Your task to perform on an android device: turn off notifications settings in the gmail app Image 0: 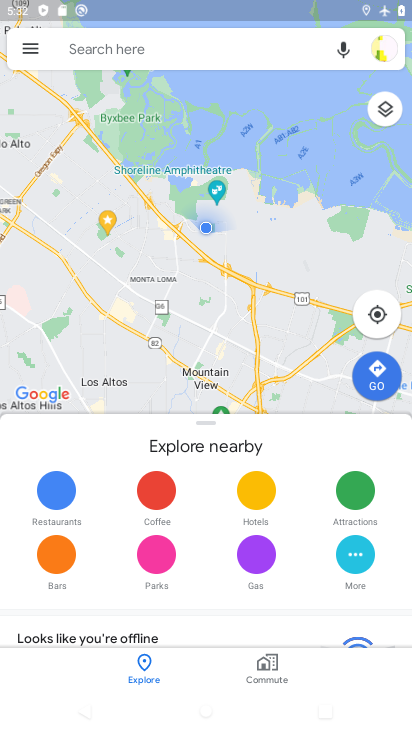
Step 0: press home button
Your task to perform on an android device: turn off notifications settings in the gmail app Image 1: 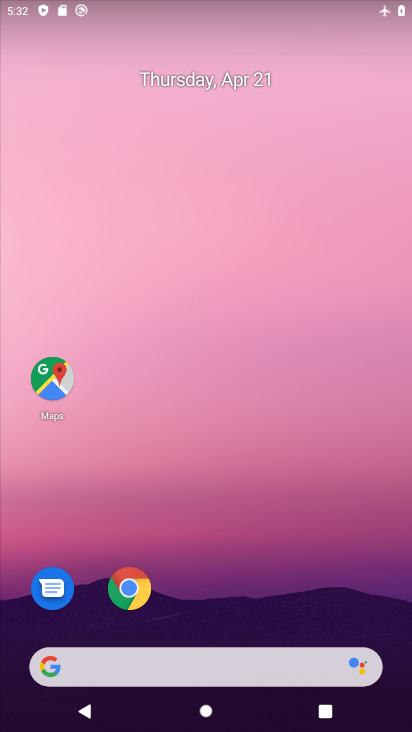
Step 1: drag from (213, 616) to (263, 202)
Your task to perform on an android device: turn off notifications settings in the gmail app Image 2: 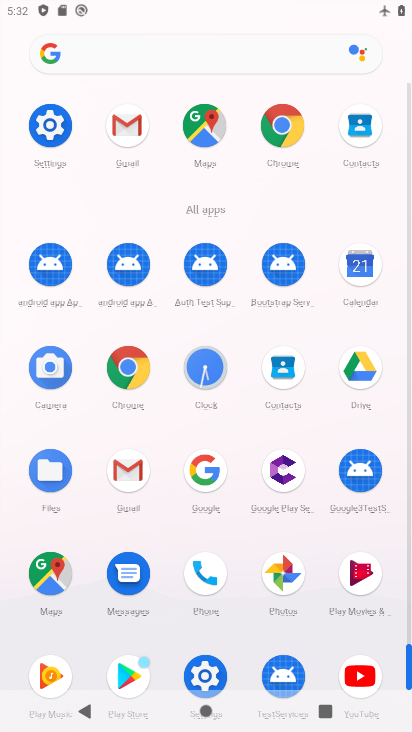
Step 2: click (127, 126)
Your task to perform on an android device: turn off notifications settings in the gmail app Image 3: 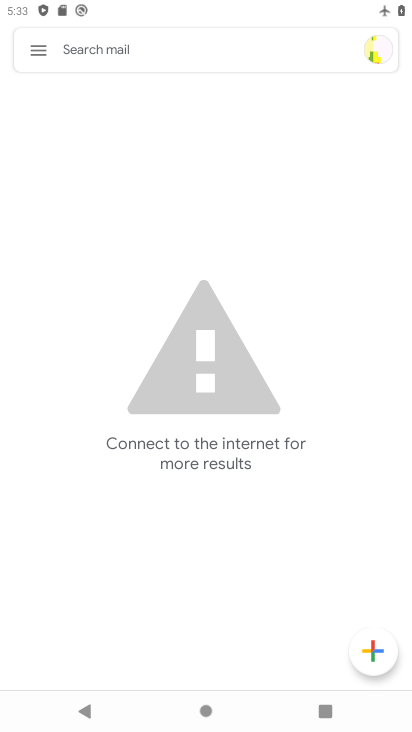
Step 3: press back button
Your task to perform on an android device: turn off notifications settings in the gmail app Image 4: 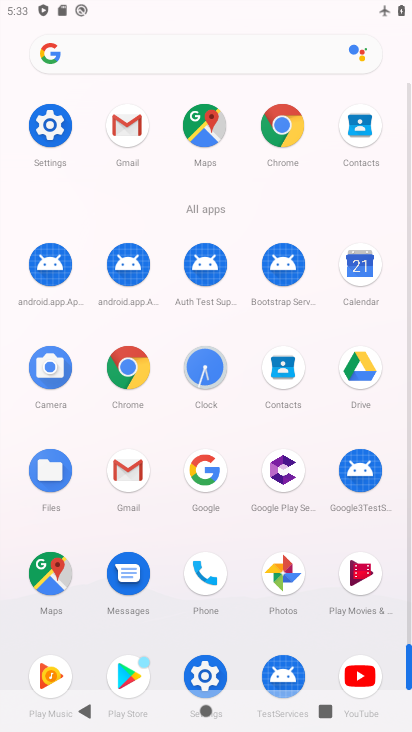
Step 4: click (59, 126)
Your task to perform on an android device: turn off notifications settings in the gmail app Image 5: 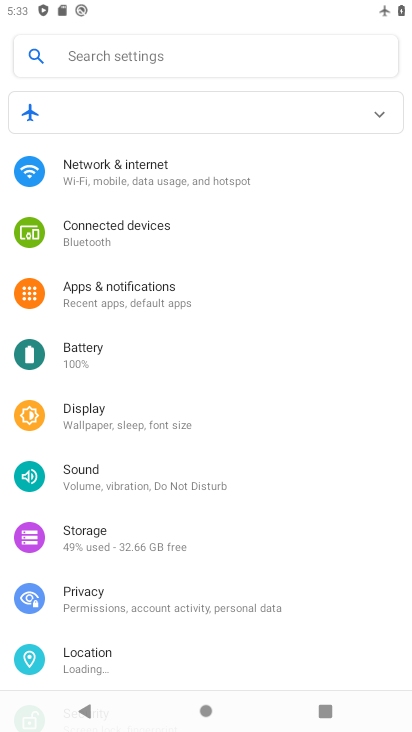
Step 5: click (132, 172)
Your task to perform on an android device: turn off notifications settings in the gmail app Image 6: 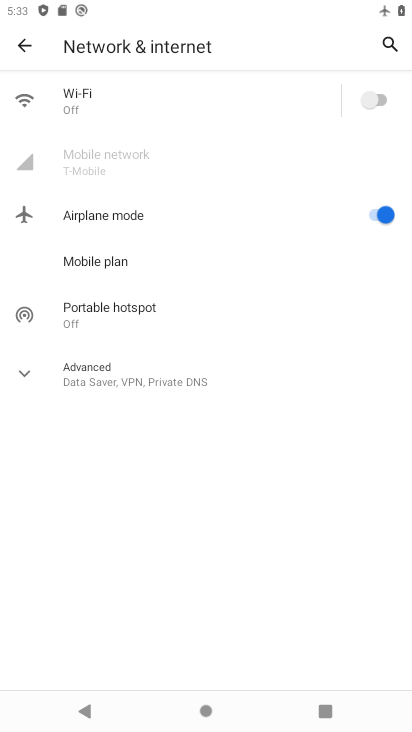
Step 6: click (374, 212)
Your task to perform on an android device: turn off notifications settings in the gmail app Image 7: 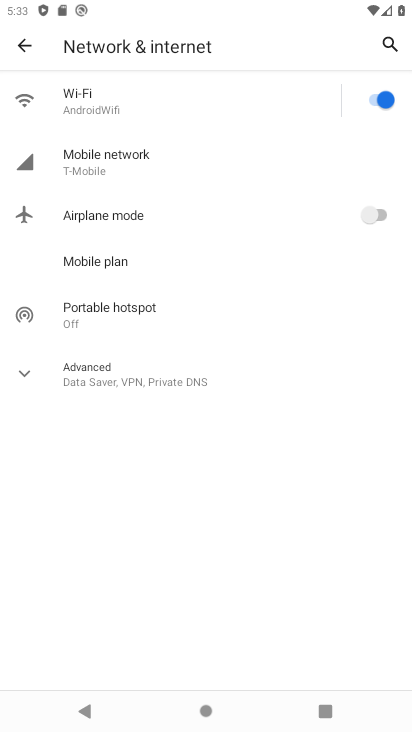
Step 7: press back button
Your task to perform on an android device: turn off notifications settings in the gmail app Image 8: 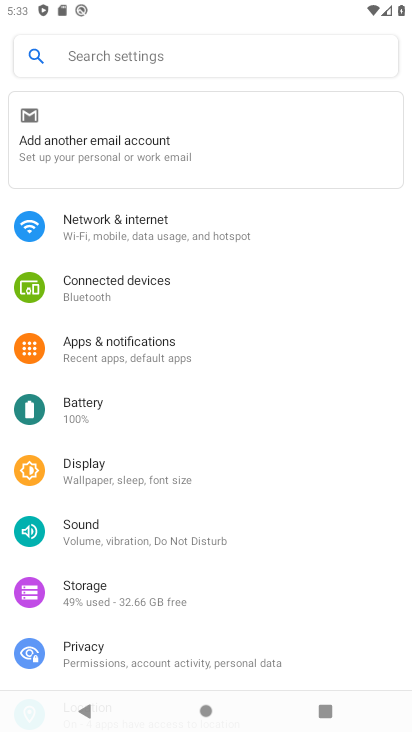
Step 8: press back button
Your task to perform on an android device: turn off notifications settings in the gmail app Image 9: 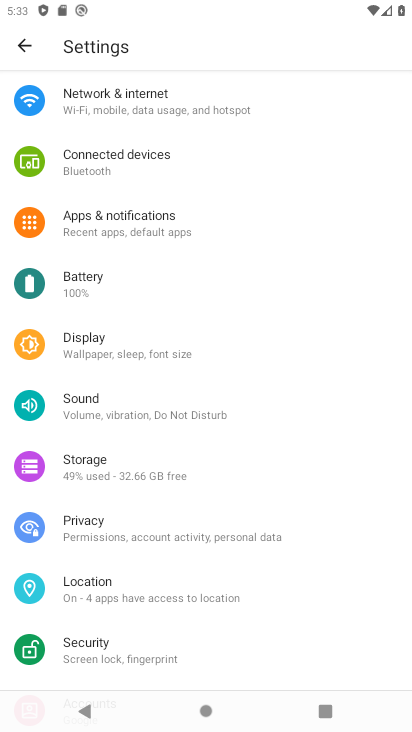
Step 9: drag from (189, 554) to (216, 397)
Your task to perform on an android device: turn off notifications settings in the gmail app Image 10: 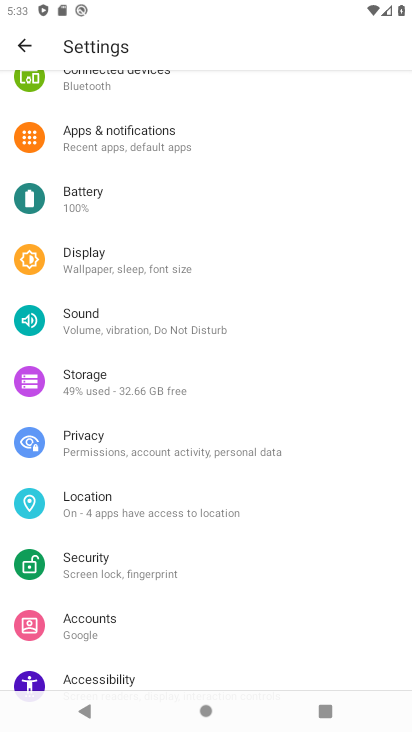
Step 10: drag from (221, 380) to (188, 471)
Your task to perform on an android device: turn off notifications settings in the gmail app Image 11: 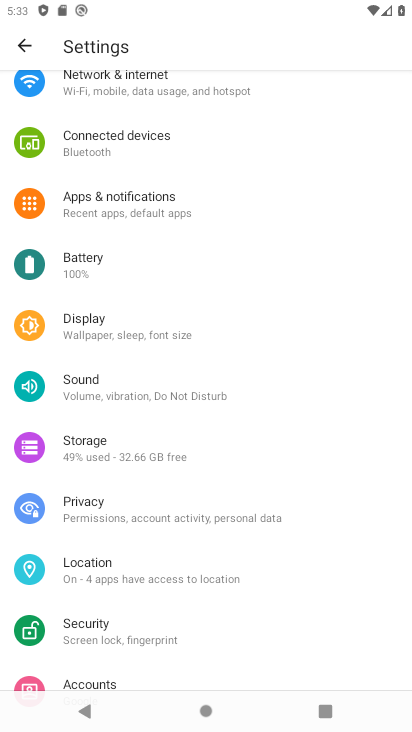
Step 11: drag from (188, 593) to (247, 240)
Your task to perform on an android device: turn off notifications settings in the gmail app Image 12: 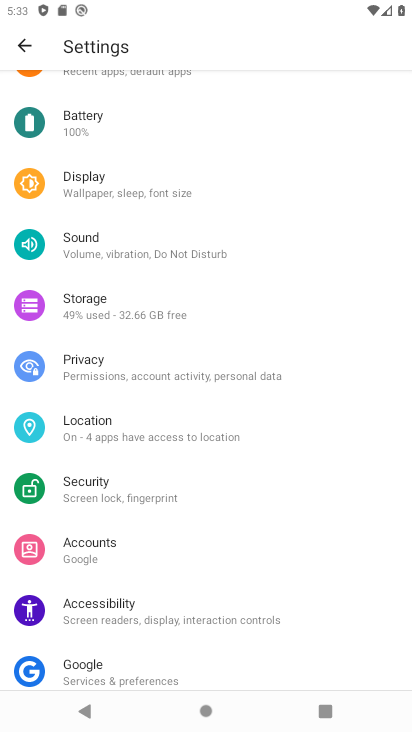
Step 12: drag from (216, 679) to (157, 323)
Your task to perform on an android device: turn off notifications settings in the gmail app Image 13: 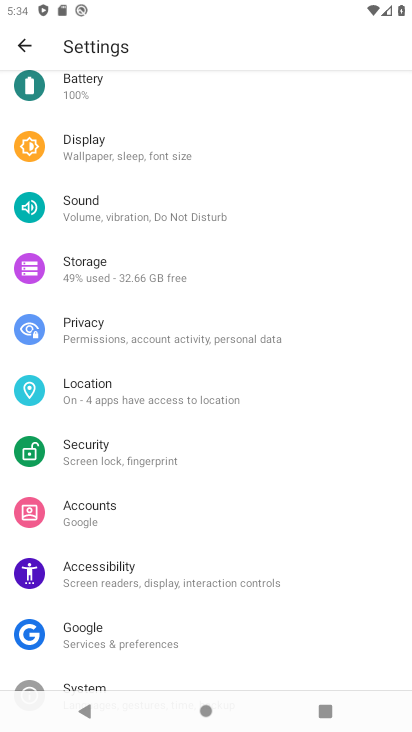
Step 13: drag from (181, 597) to (219, 197)
Your task to perform on an android device: turn off notifications settings in the gmail app Image 14: 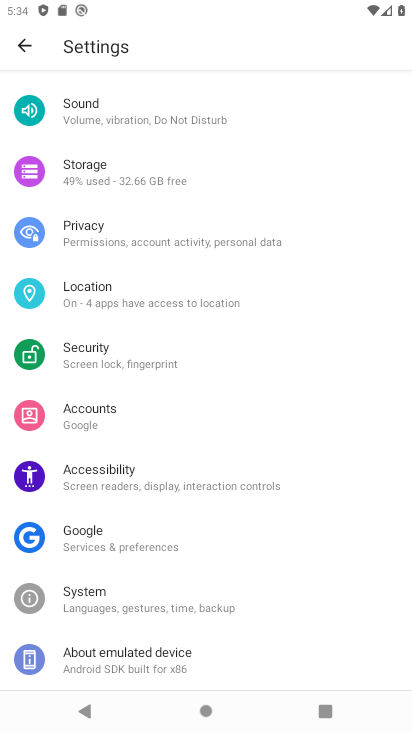
Step 14: drag from (185, 274) to (162, 598)
Your task to perform on an android device: turn off notifications settings in the gmail app Image 15: 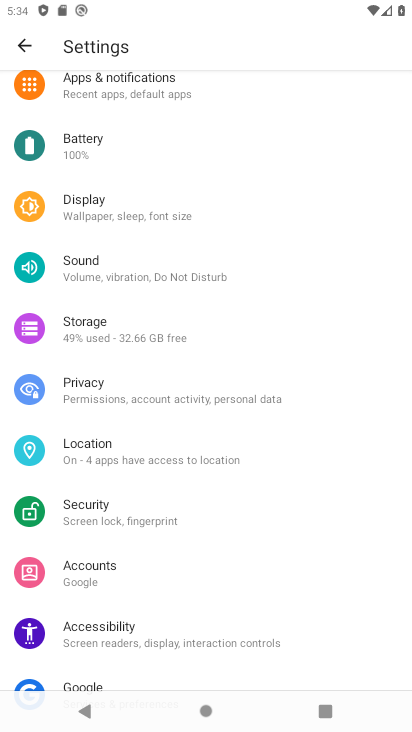
Step 15: drag from (206, 215) to (206, 599)
Your task to perform on an android device: turn off notifications settings in the gmail app Image 16: 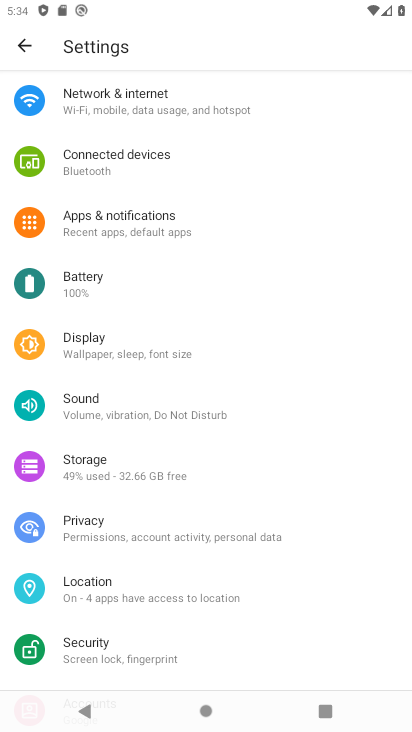
Step 16: press back button
Your task to perform on an android device: turn off notifications settings in the gmail app Image 17: 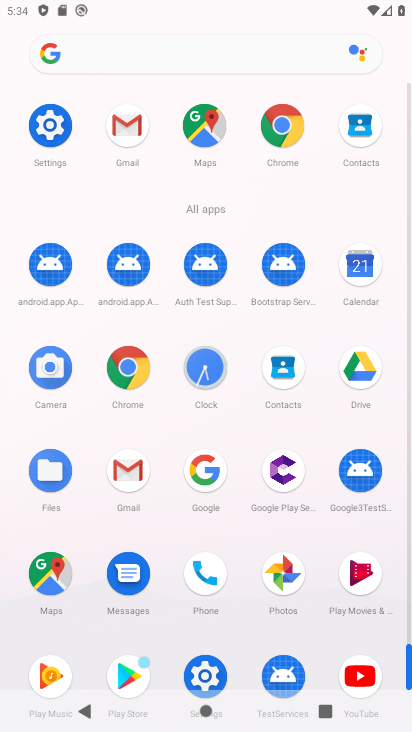
Step 17: click (119, 144)
Your task to perform on an android device: turn off notifications settings in the gmail app Image 18: 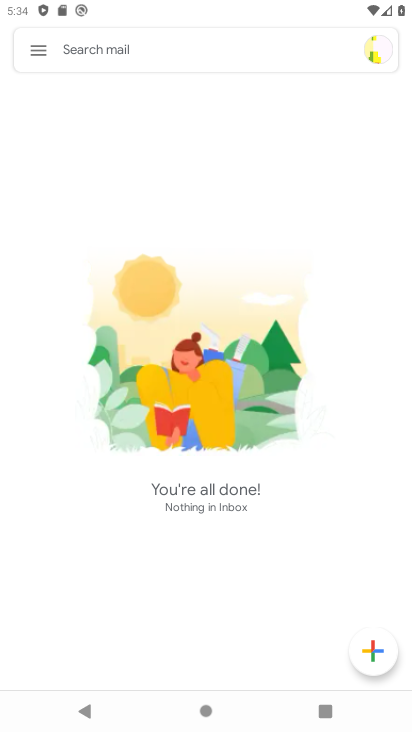
Step 18: click (30, 54)
Your task to perform on an android device: turn off notifications settings in the gmail app Image 19: 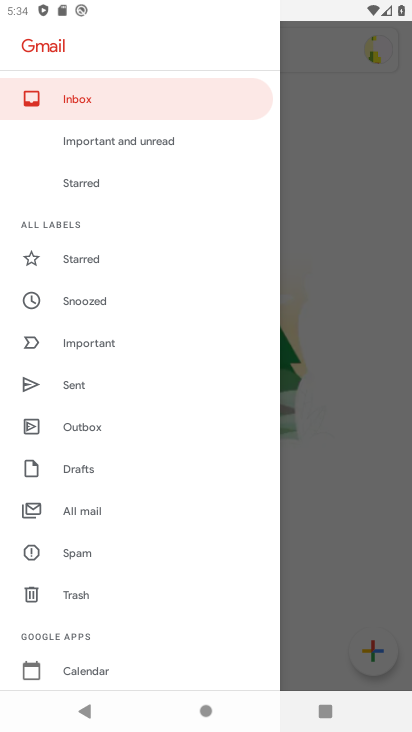
Step 19: drag from (90, 638) to (184, 298)
Your task to perform on an android device: turn off notifications settings in the gmail app Image 20: 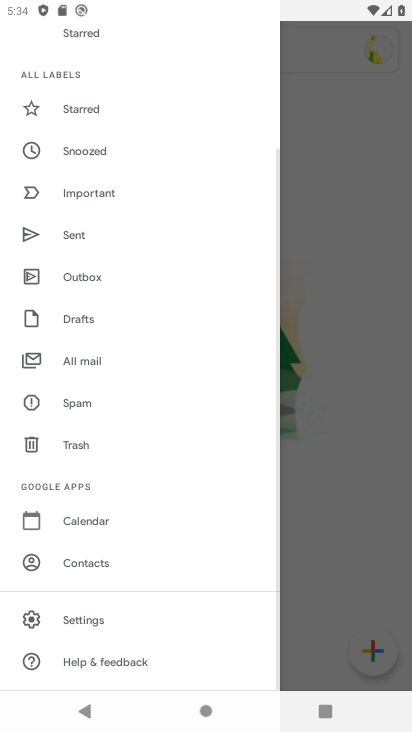
Step 20: click (77, 626)
Your task to perform on an android device: turn off notifications settings in the gmail app Image 21: 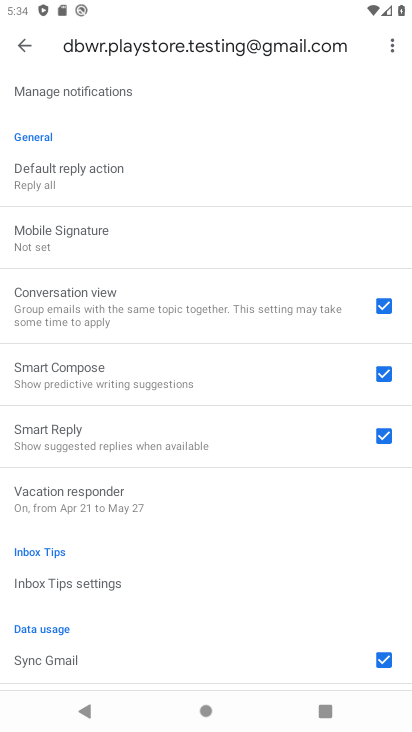
Step 21: drag from (162, 573) to (239, 207)
Your task to perform on an android device: turn off notifications settings in the gmail app Image 22: 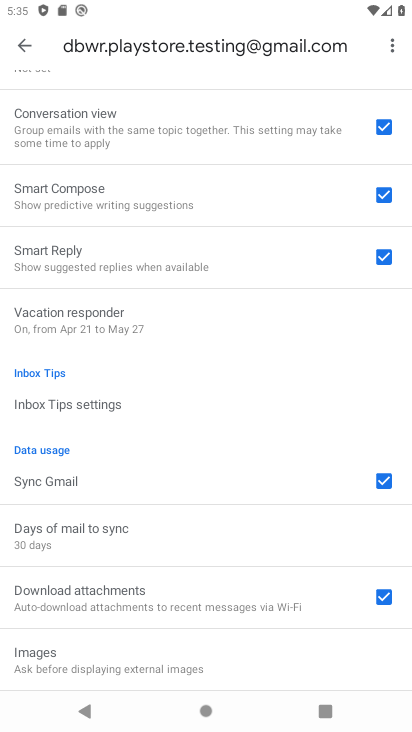
Step 22: drag from (223, 209) to (209, 722)
Your task to perform on an android device: turn off notifications settings in the gmail app Image 23: 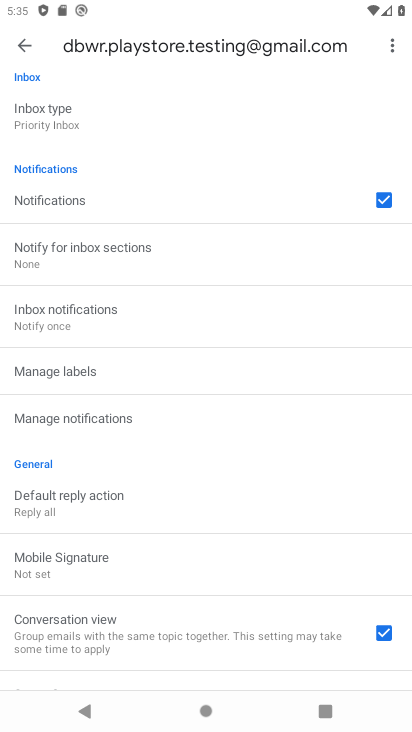
Step 23: drag from (171, 251) to (125, 543)
Your task to perform on an android device: turn off notifications settings in the gmail app Image 24: 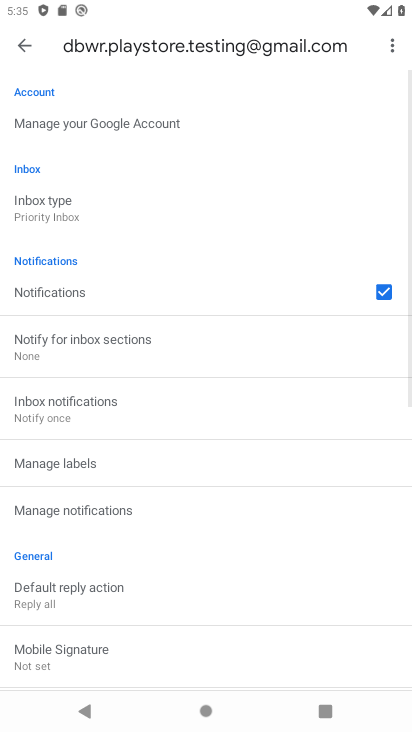
Step 24: drag from (126, 219) to (113, 507)
Your task to perform on an android device: turn off notifications settings in the gmail app Image 25: 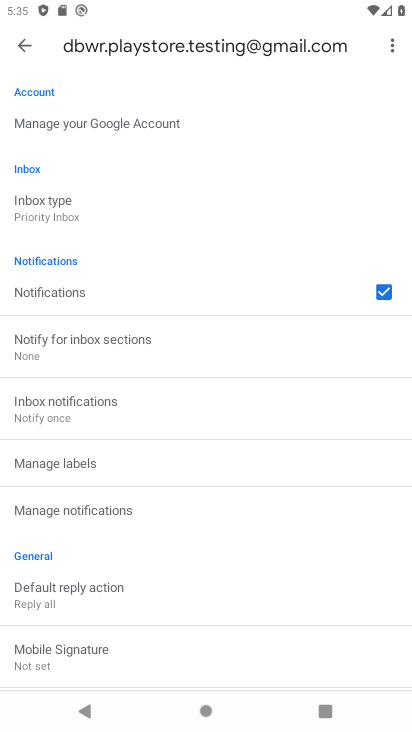
Step 25: click (60, 293)
Your task to perform on an android device: turn off notifications settings in the gmail app Image 26: 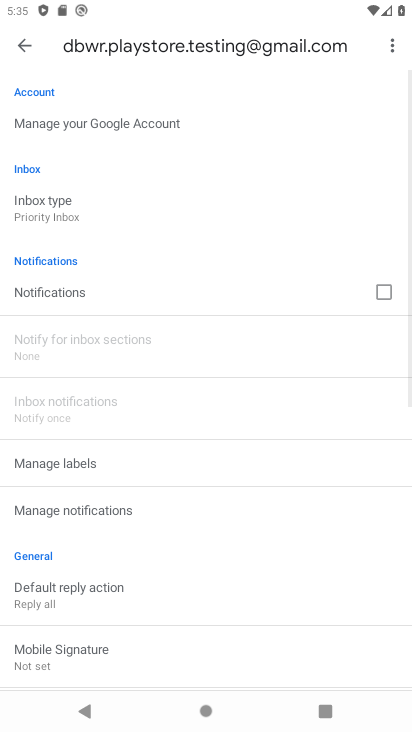
Step 26: click (60, 293)
Your task to perform on an android device: turn off notifications settings in the gmail app Image 27: 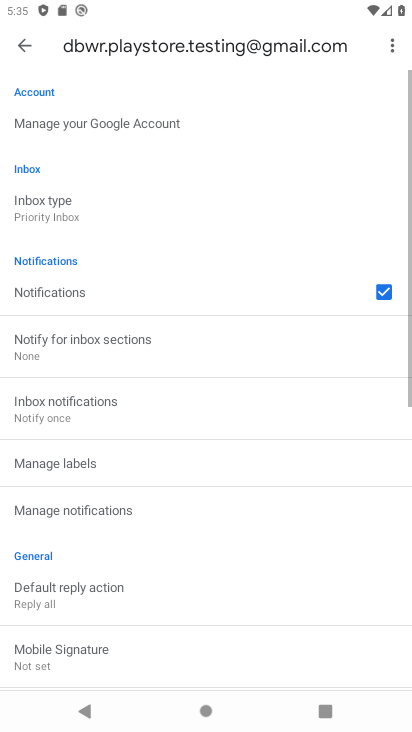
Step 27: click (60, 293)
Your task to perform on an android device: turn off notifications settings in the gmail app Image 28: 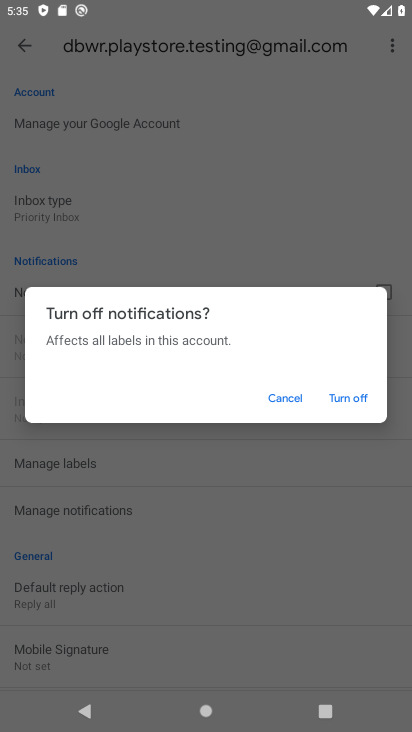
Step 28: click (368, 400)
Your task to perform on an android device: turn off notifications settings in the gmail app Image 29: 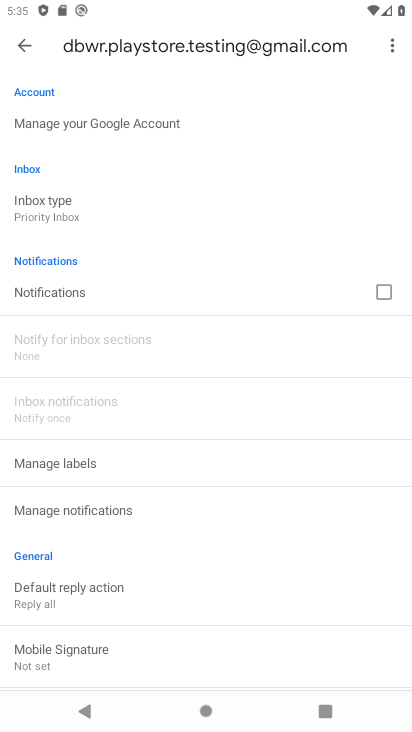
Step 29: task complete